Your task to perform on an android device: see creations saved in the google photos Image 0: 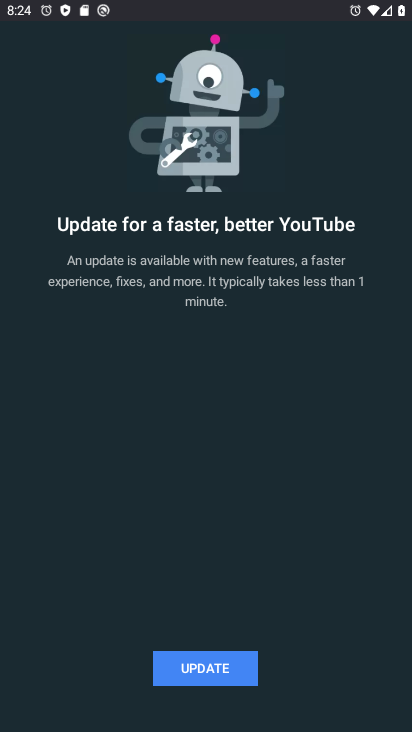
Step 0: press home button
Your task to perform on an android device: see creations saved in the google photos Image 1: 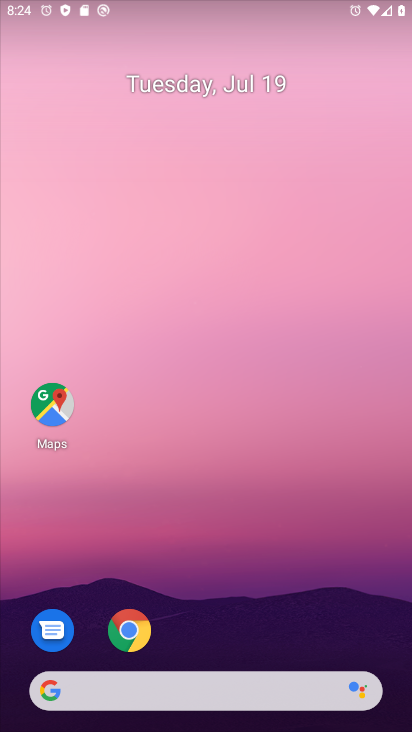
Step 1: drag from (285, 604) to (330, 272)
Your task to perform on an android device: see creations saved in the google photos Image 2: 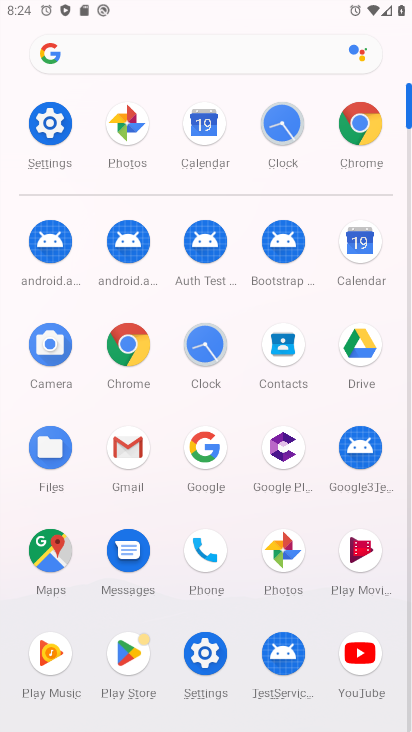
Step 2: click (284, 544)
Your task to perform on an android device: see creations saved in the google photos Image 3: 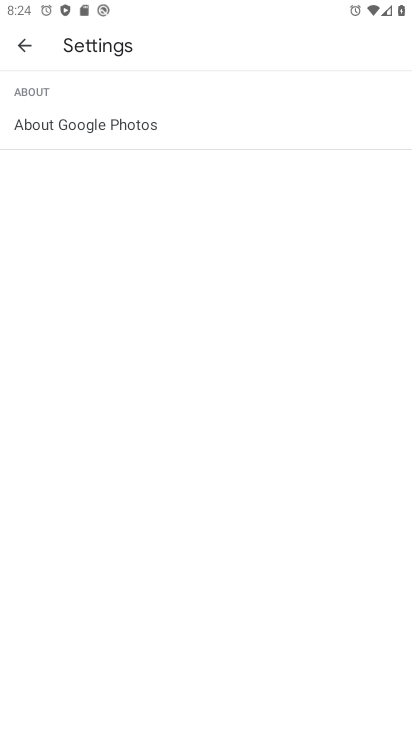
Step 3: click (21, 44)
Your task to perform on an android device: see creations saved in the google photos Image 4: 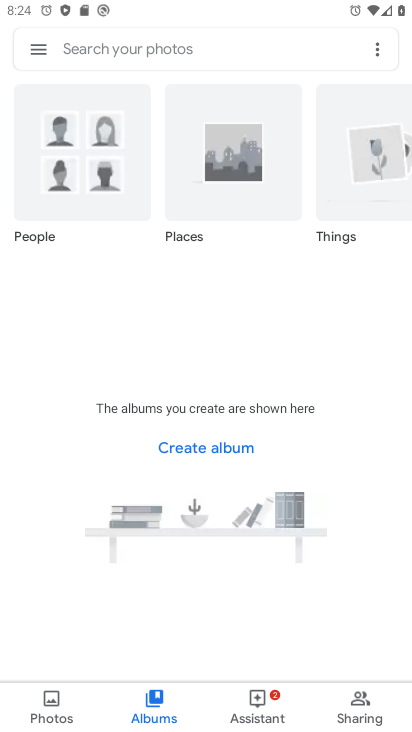
Step 4: click (53, 699)
Your task to perform on an android device: see creations saved in the google photos Image 5: 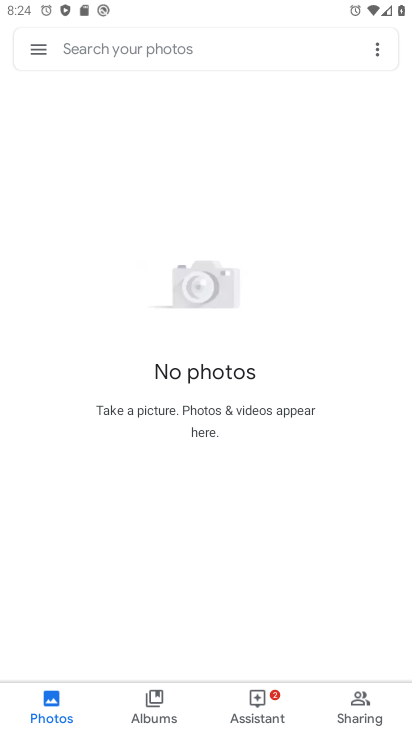
Step 5: task complete